Your task to perform on an android device: Do I have any events tomorrow? Image 0: 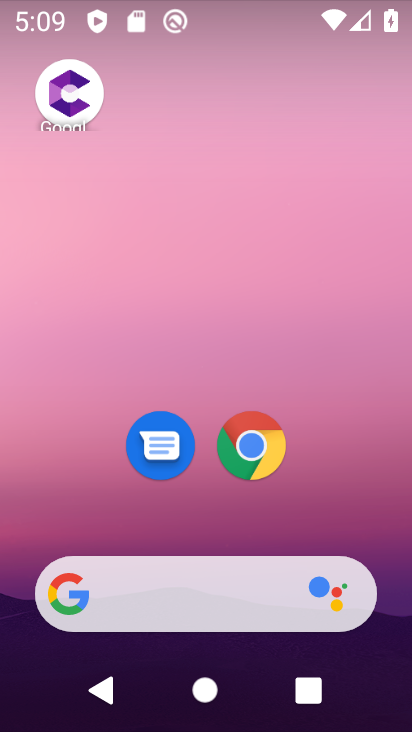
Step 0: drag from (363, 494) to (234, 34)
Your task to perform on an android device: Do I have any events tomorrow? Image 1: 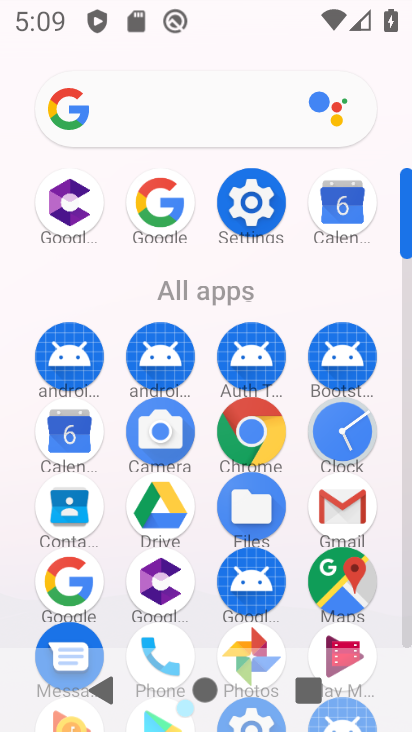
Step 1: click (345, 205)
Your task to perform on an android device: Do I have any events tomorrow? Image 2: 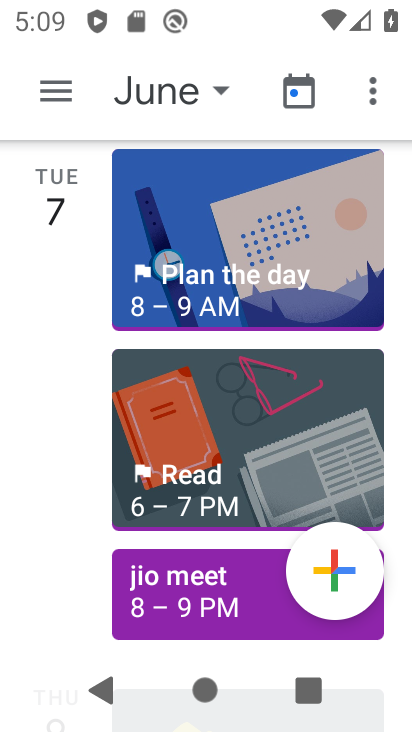
Step 2: click (303, 88)
Your task to perform on an android device: Do I have any events tomorrow? Image 3: 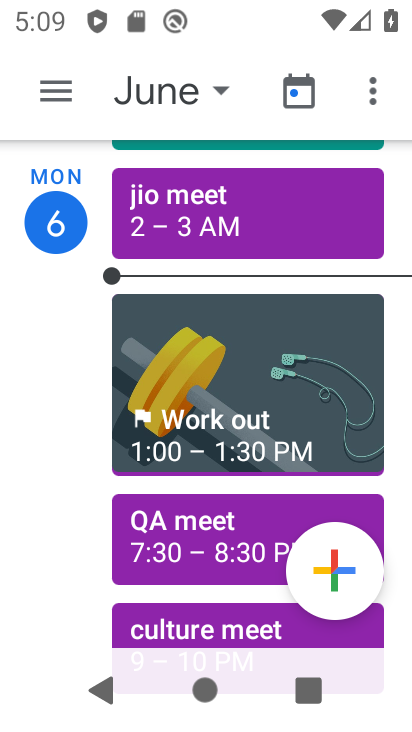
Step 3: click (211, 91)
Your task to perform on an android device: Do I have any events tomorrow? Image 4: 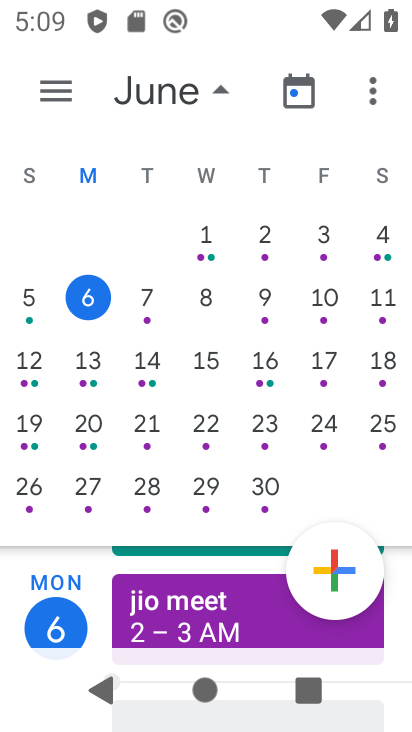
Step 4: click (151, 298)
Your task to perform on an android device: Do I have any events tomorrow? Image 5: 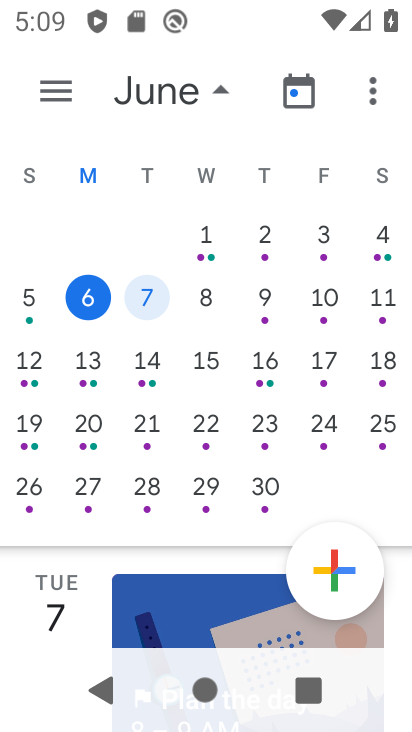
Step 5: click (78, 98)
Your task to perform on an android device: Do I have any events tomorrow? Image 6: 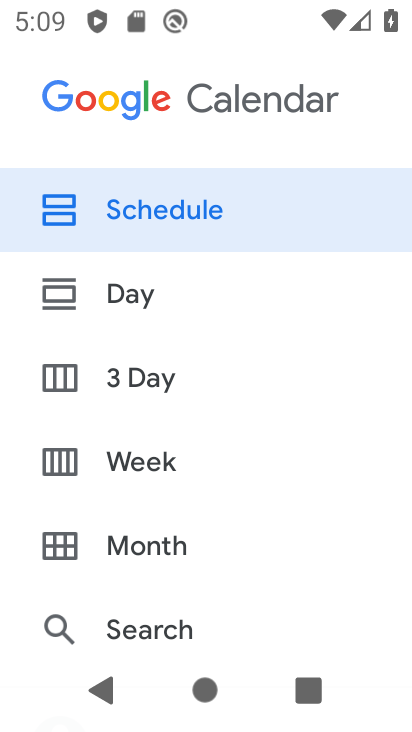
Step 6: click (102, 190)
Your task to perform on an android device: Do I have any events tomorrow? Image 7: 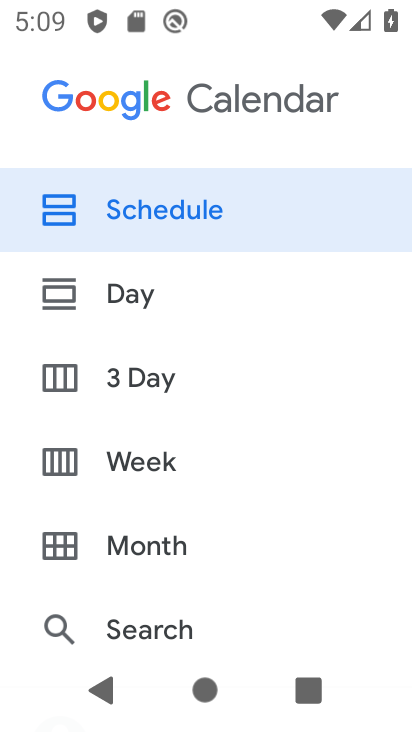
Step 7: click (185, 214)
Your task to perform on an android device: Do I have any events tomorrow? Image 8: 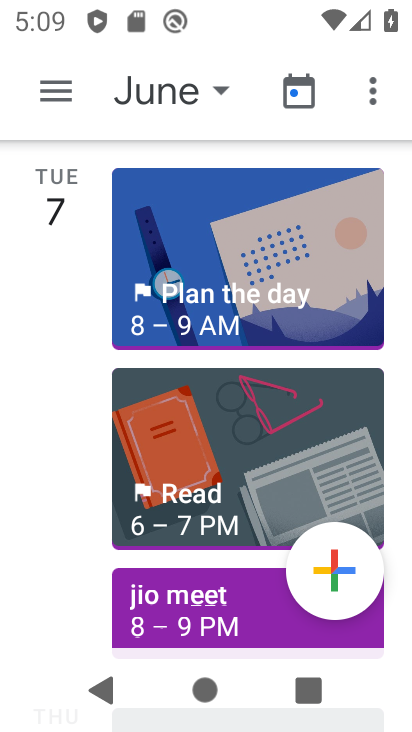
Step 8: task complete